Your task to perform on an android device: read, delete, or share a saved page in the chrome app Image 0: 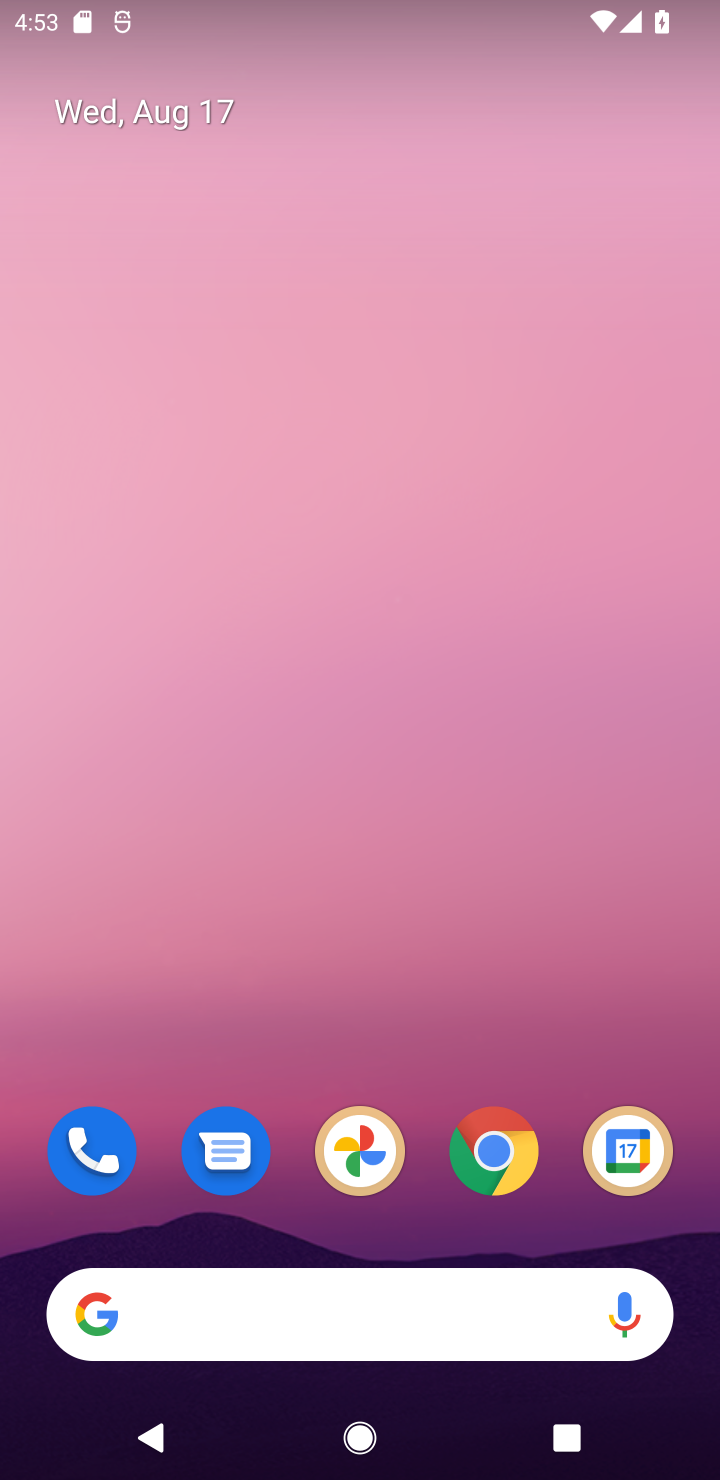
Step 0: click (502, 1172)
Your task to perform on an android device: read, delete, or share a saved page in the chrome app Image 1: 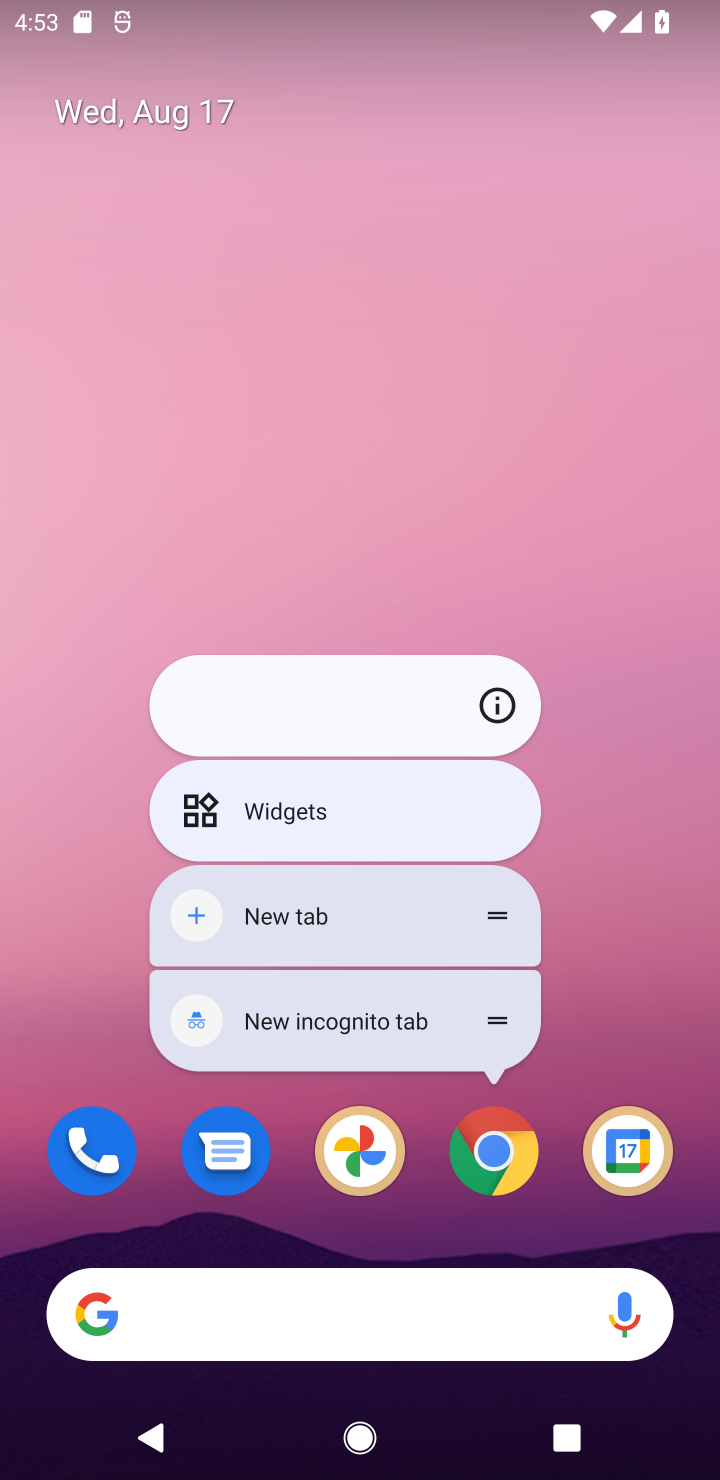
Step 1: click (502, 1172)
Your task to perform on an android device: read, delete, or share a saved page in the chrome app Image 2: 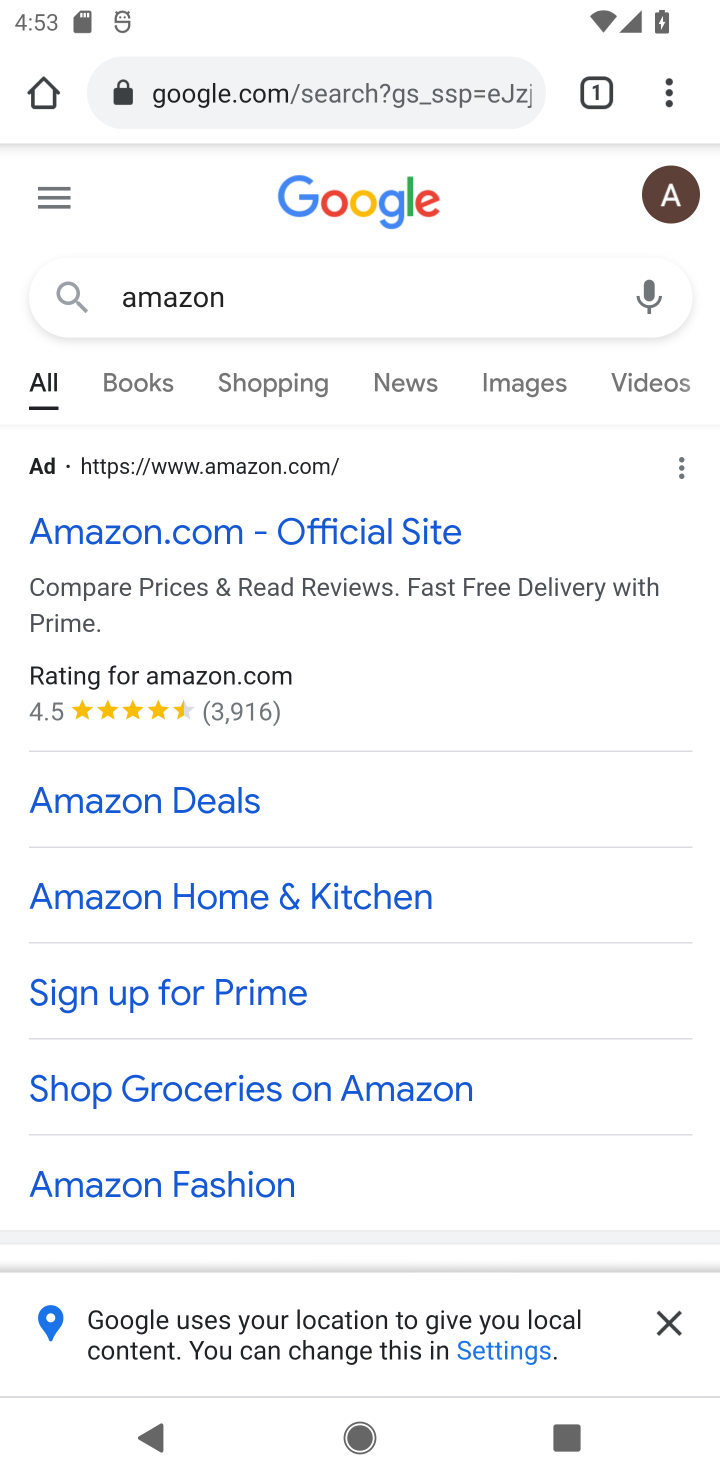
Step 2: click (677, 96)
Your task to perform on an android device: read, delete, or share a saved page in the chrome app Image 3: 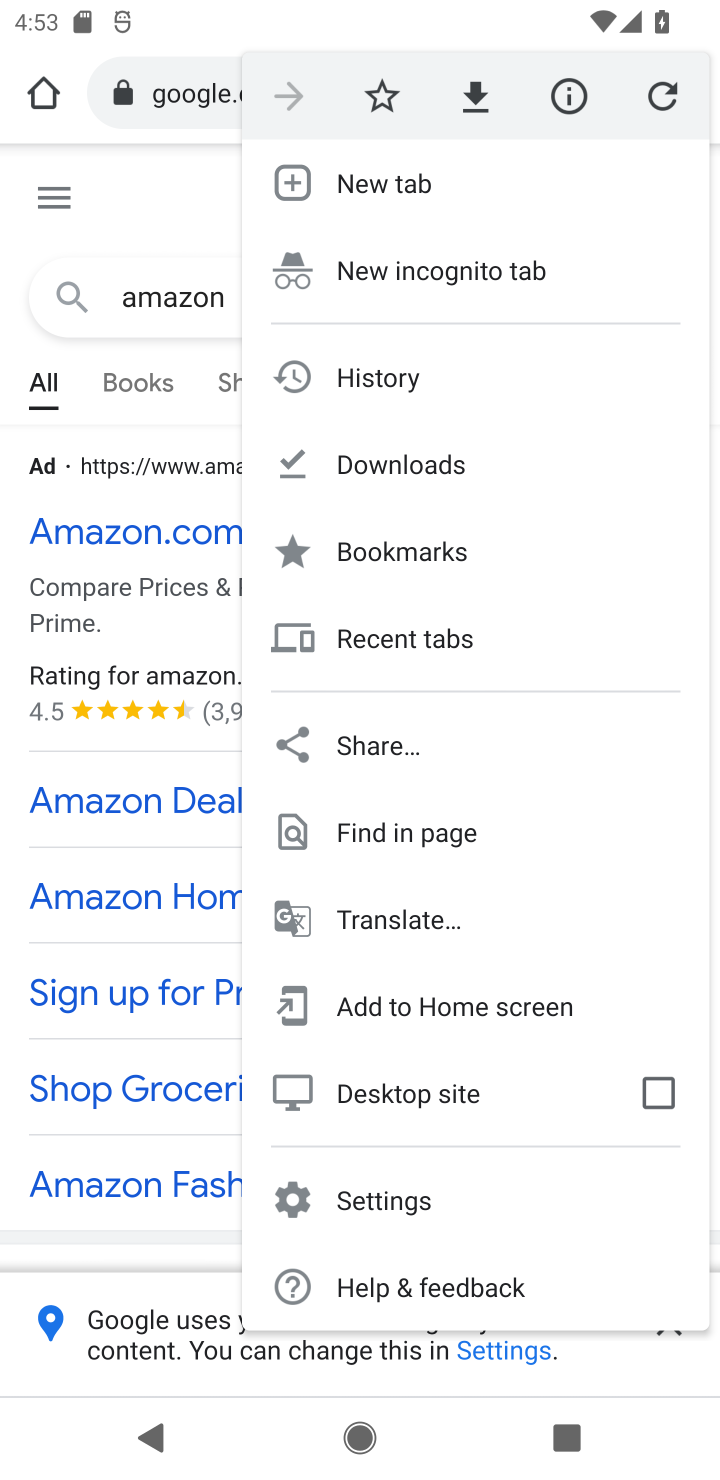
Step 3: click (446, 626)
Your task to perform on an android device: read, delete, or share a saved page in the chrome app Image 4: 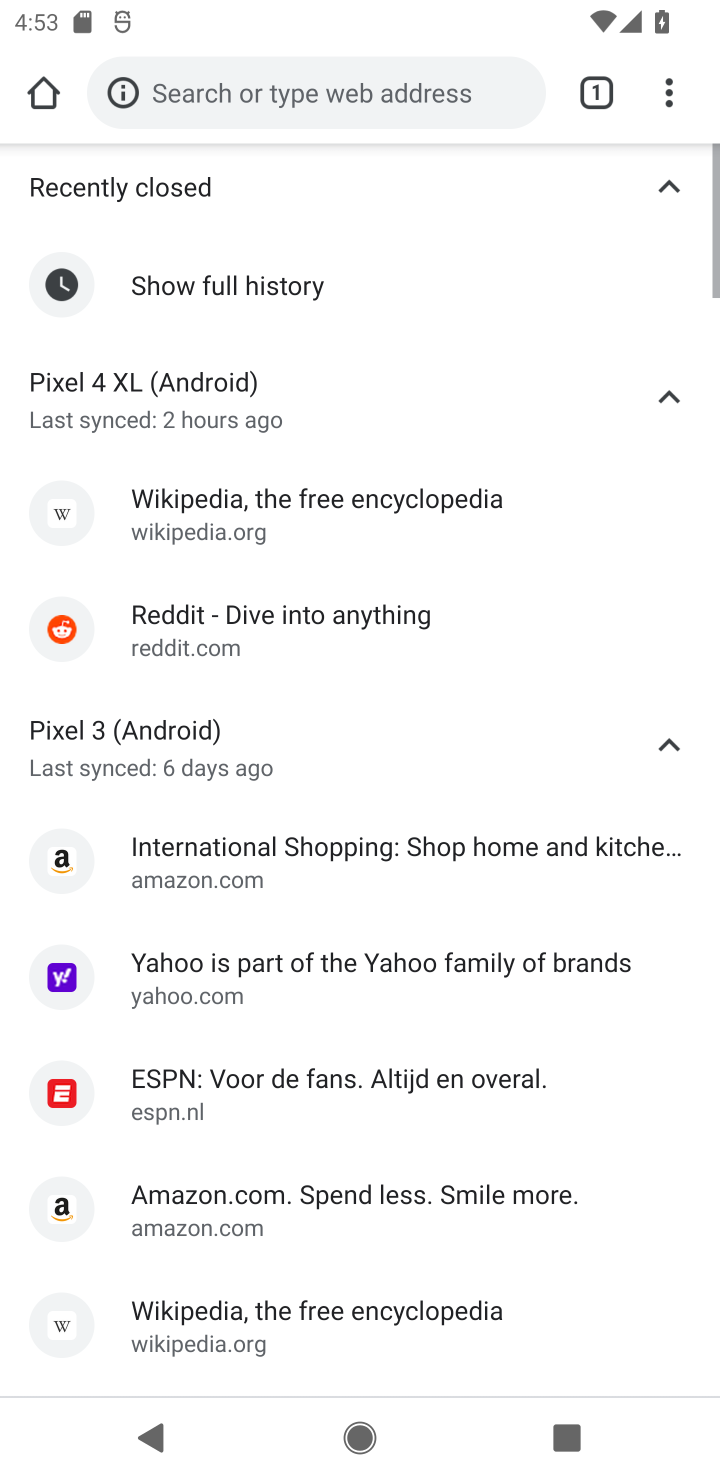
Step 4: task complete